Your task to perform on an android device: set an alarm Image 0: 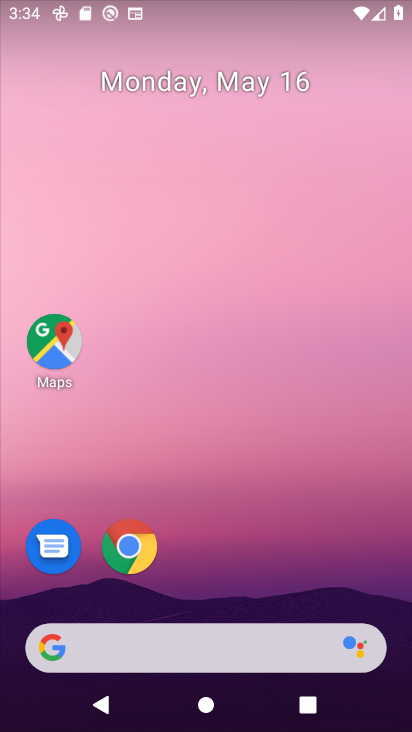
Step 0: drag from (352, 542) to (356, 99)
Your task to perform on an android device: set an alarm Image 1: 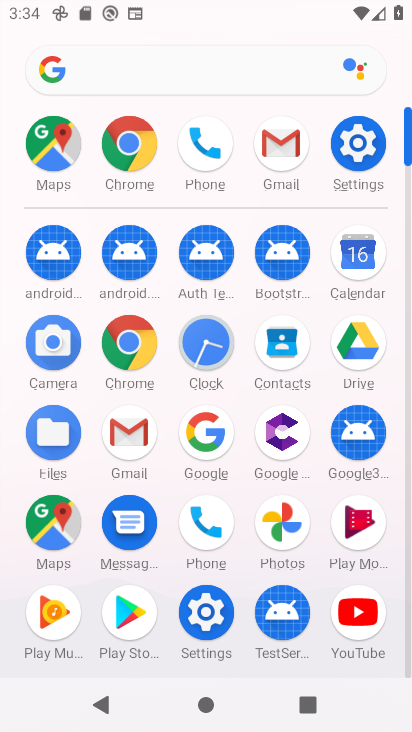
Step 1: click (204, 351)
Your task to perform on an android device: set an alarm Image 2: 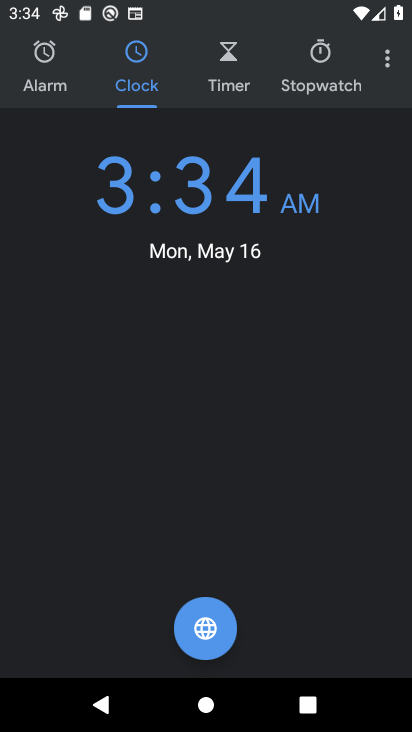
Step 2: click (50, 69)
Your task to perform on an android device: set an alarm Image 3: 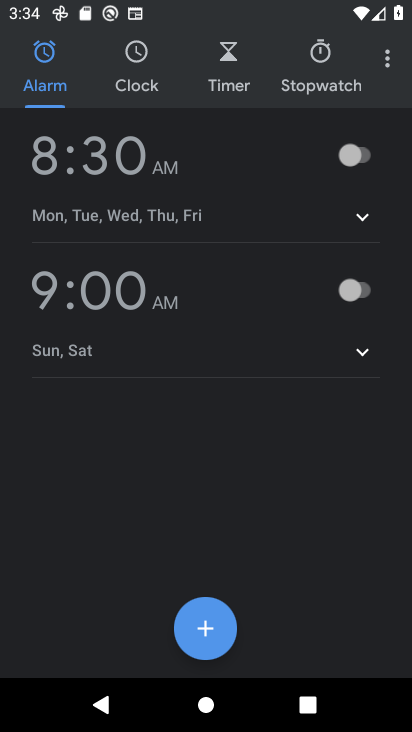
Step 3: click (212, 635)
Your task to perform on an android device: set an alarm Image 4: 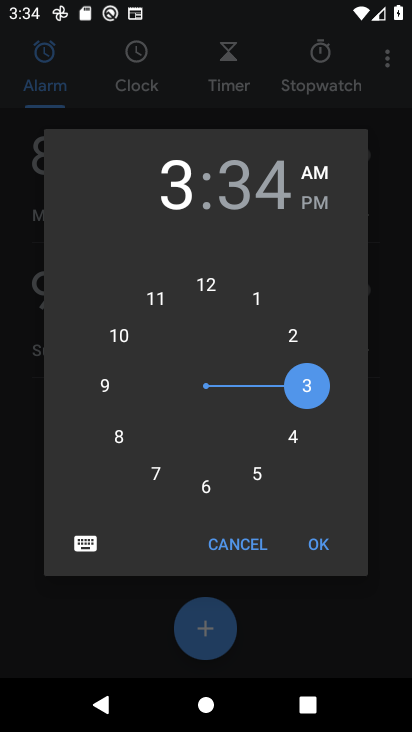
Step 4: click (296, 447)
Your task to perform on an android device: set an alarm Image 5: 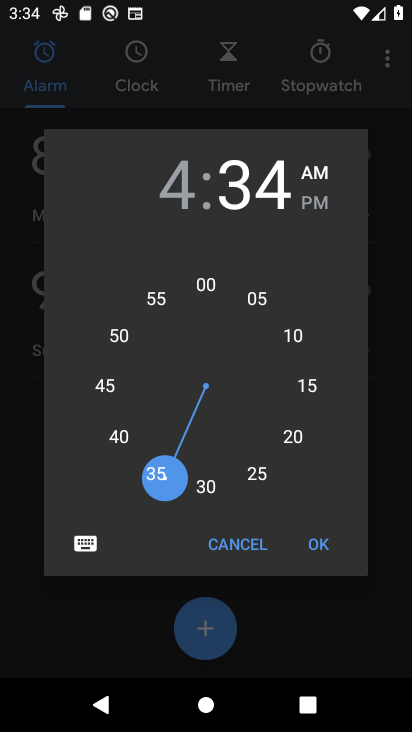
Step 5: click (327, 544)
Your task to perform on an android device: set an alarm Image 6: 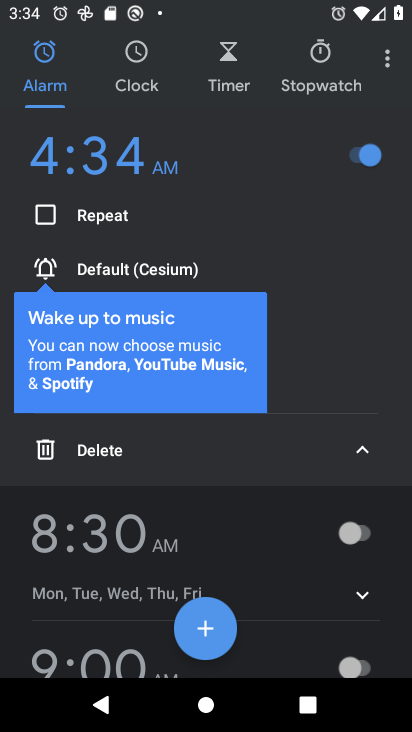
Step 6: task complete